Your task to perform on an android device: Open Youtube and go to "Your channel" Image 0: 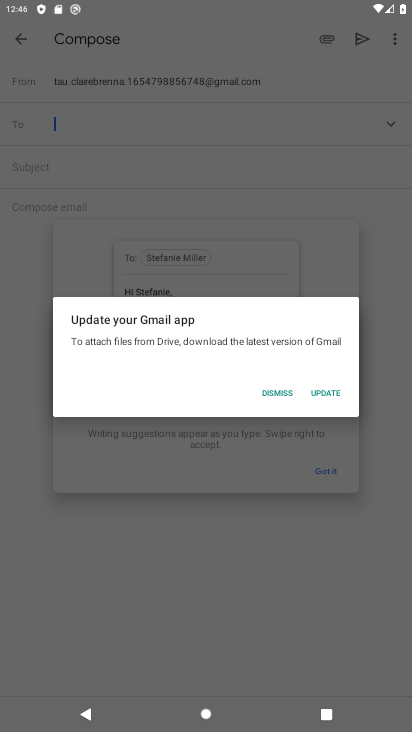
Step 0: press home button
Your task to perform on an android device: Open Youtube and go to "Your channel" Image 1: 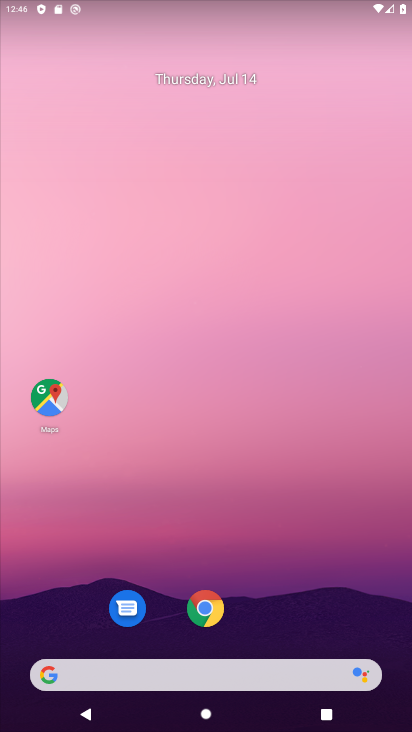
Step 1: drag from (341, 620) to (178, 127)
Your task to perform on an android device: Open Youtube and go to "Your channel" Image 2: 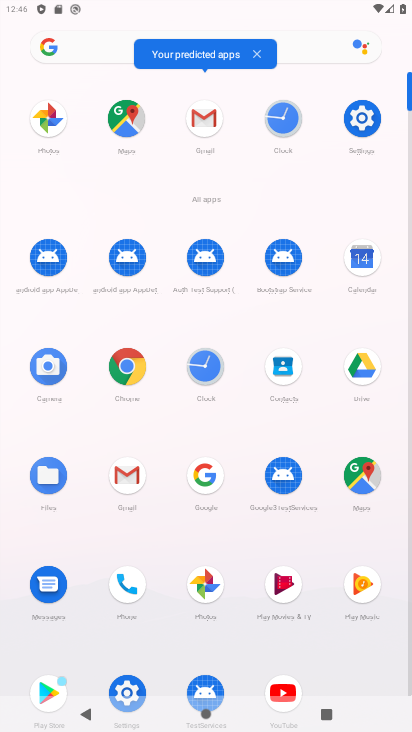
Step 2: click (280, 681)
Your task to perform on an android device: Open Youtube and go to "Your channel" Image 3: 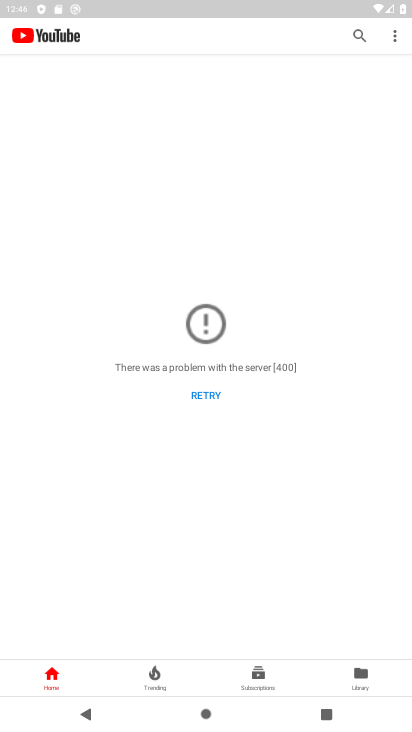
Step 3: task complete